Your task to perform on an android device: Open Chrome and go to settings Image 0: 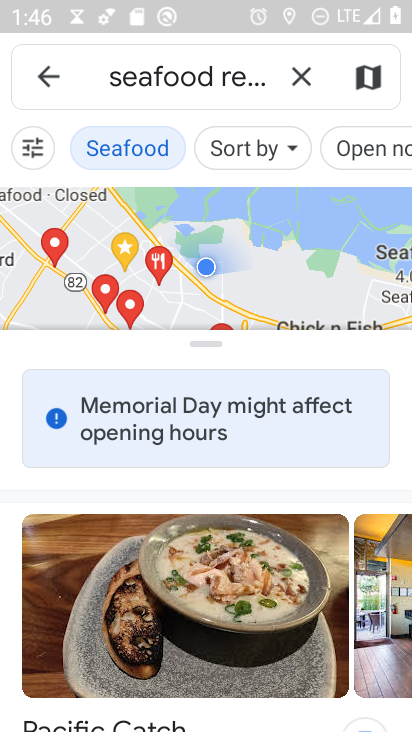
Step 0: press home button
Your task to perform on an android device: Open Chrome and go to settings Image 1: 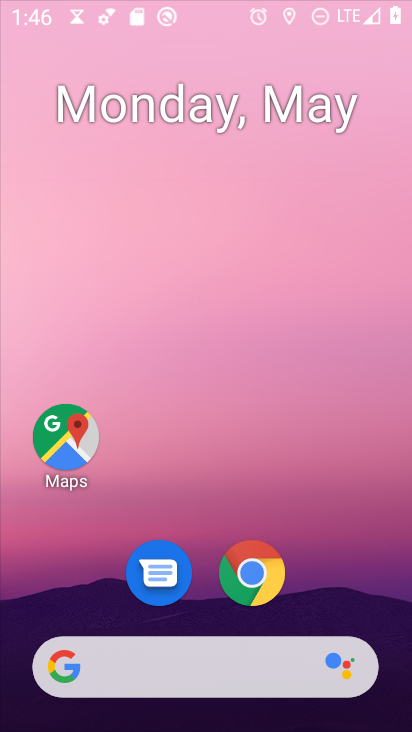
Step 1: drag from (256, 712) to (341, 64)
Your task to perform on an android device: Open Chrome and go to settings Image 2: 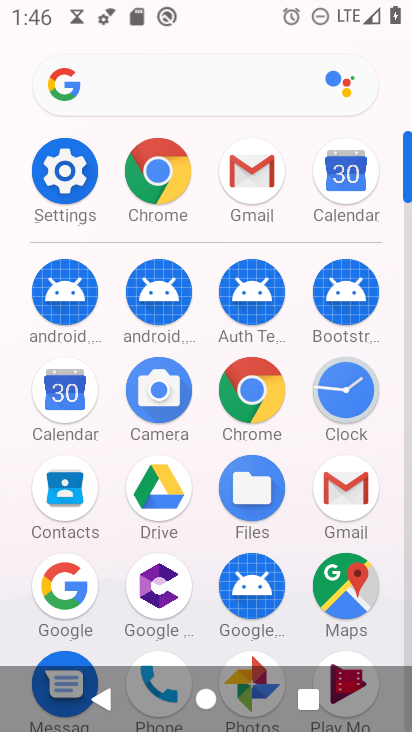
Step 2: click (270, 387)
Your task to perform on an android device: Open Chrome and go to settings Image 3: 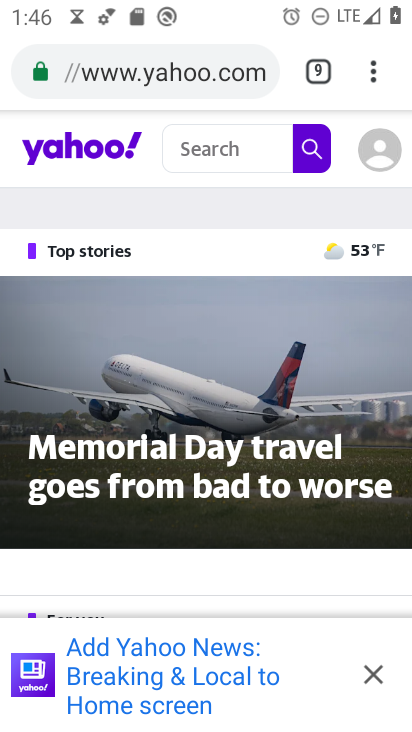
Step 3: task complete